Your task to perform on an android device: Search for vegetarian restaurants on Maps Image 0: 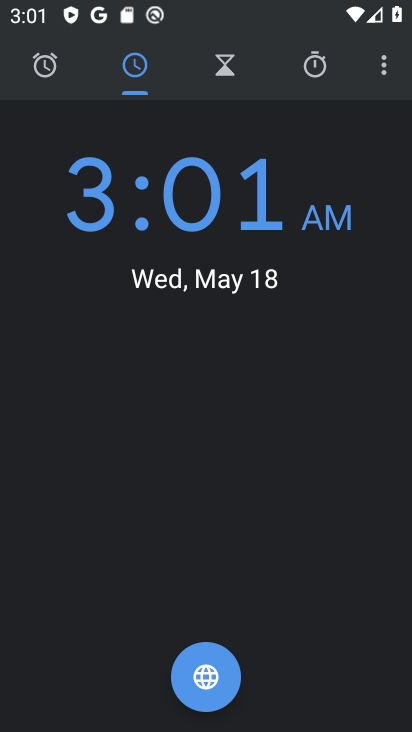
Step 0: press home button
Your task to perform on an android device: Search for vegetarian restaurants on Maps Image 1: 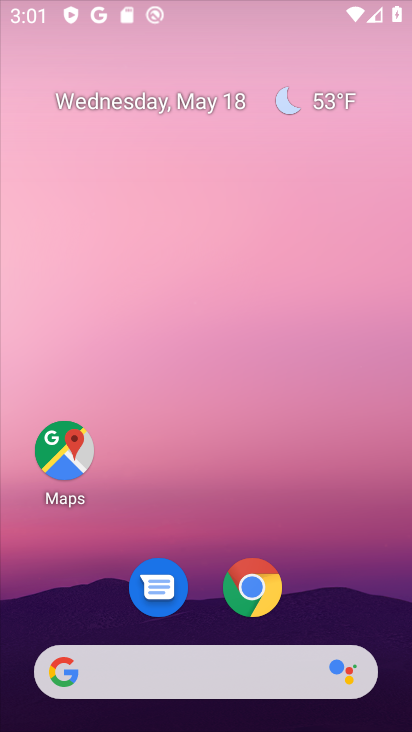
Step 1: drag from (233, 428) to (302, 14)
Your task to perform on an android device: Search for vegetarian restaurants on Maps Image 2: 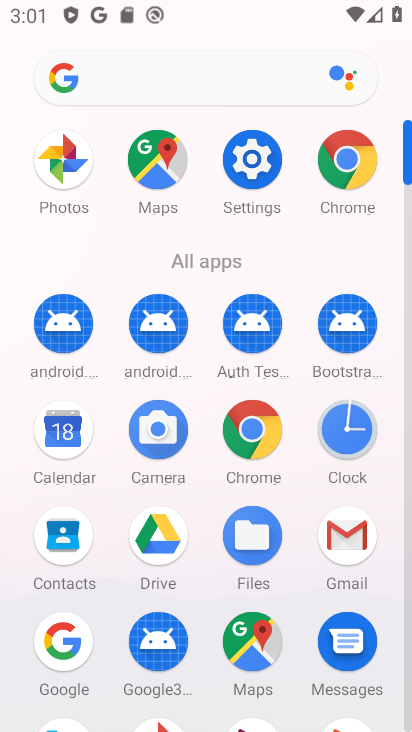
Step 2: drag from (228, 490) to (297, 119)
Your task to perform on an android device: Search for vegetarian restaurants on Maps Image 3: 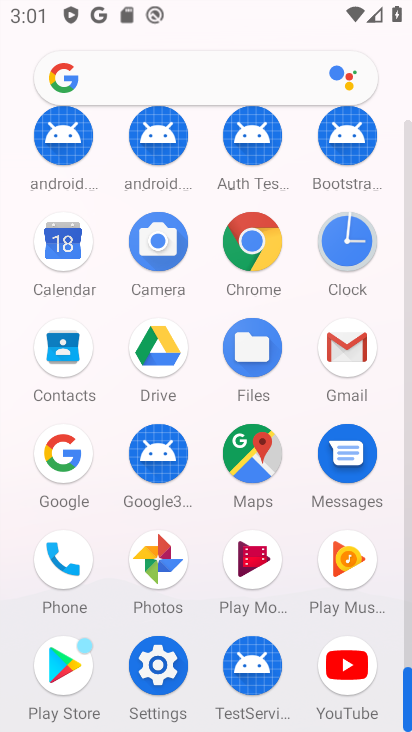
Step 3: click (245, 492)
Your task to perform on an android device: Search for vegetarian restaurants on Maps Image 4: 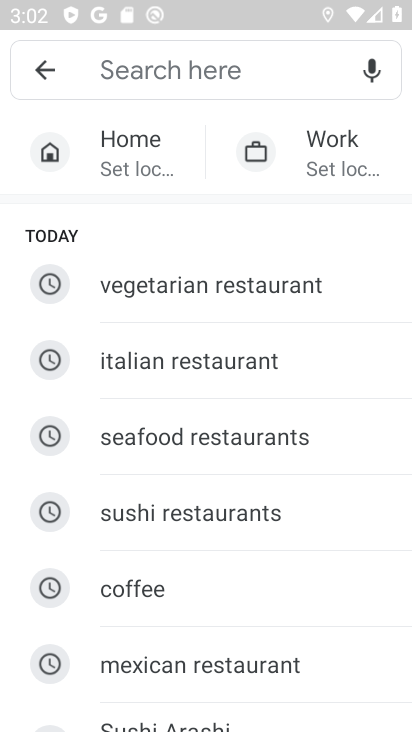
Step 4: click (216, 300)
Your task to perform on an android device: Search for vegetarian restaurants on Maps Image 5: 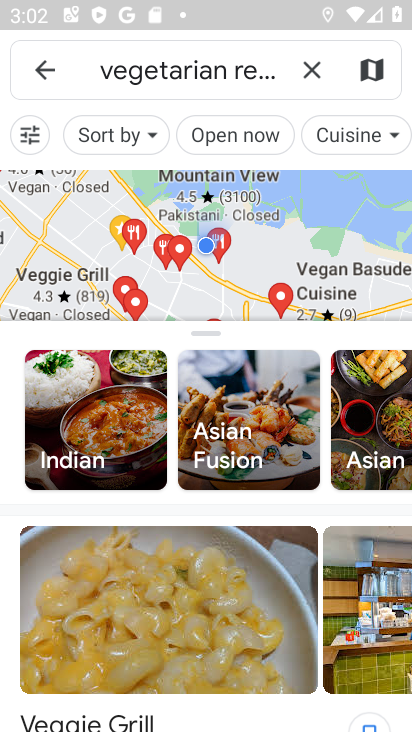
Step 5: task complete